Your task to perform on an android device: visit the assistant section in the google photos Image 0: 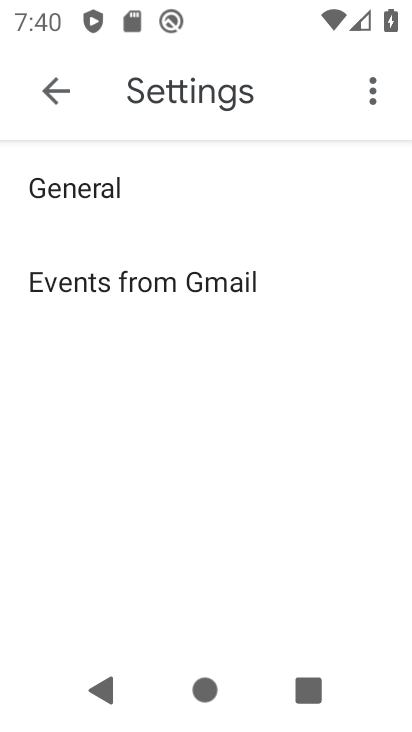
Step 0: press home button
Your task to perform on an android device: visit the assistant section in the google photos Image 1: 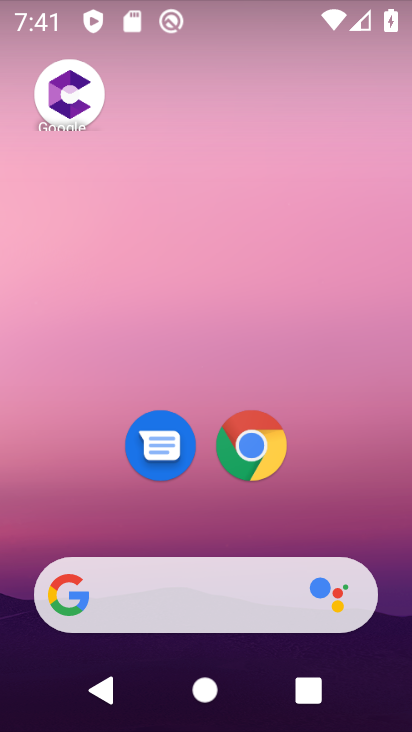
Step 1: drag from (360, 534) to (392, 478)
Your task to perform on an android device: visit the assistant section in the google photos Image 2: 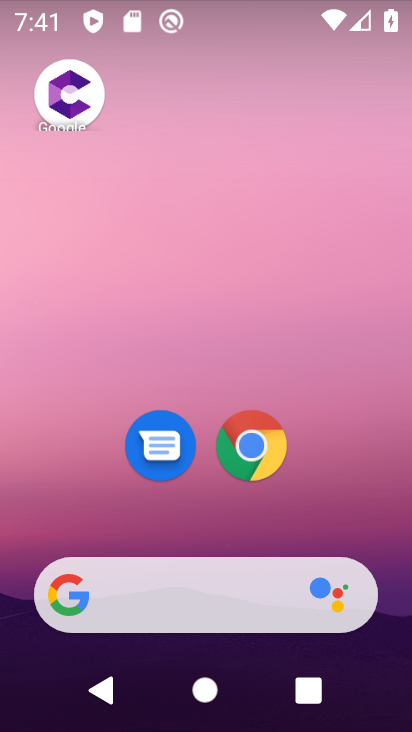
Step 2: drag from (365, 542) to (343, 6)
Your task to perform on an android device: visit the assistant section in the google photos Image 3: 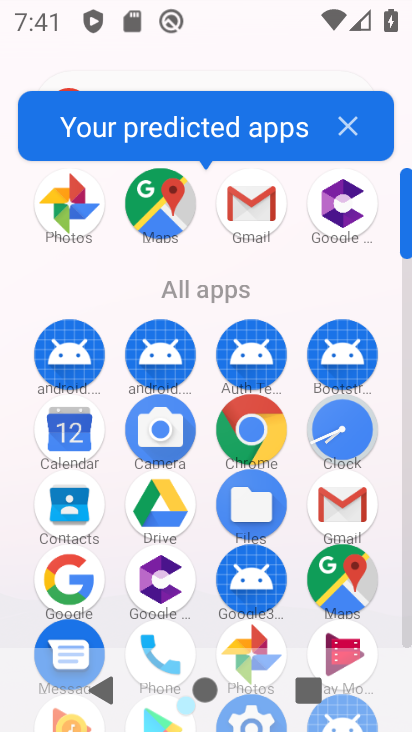
Step 3: click (69, 204)
Your task to perform on an android device: visit the assistant section in the google photos Image 4: 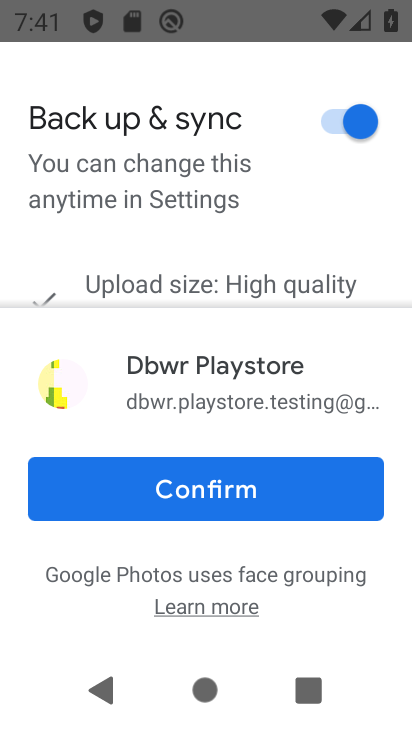
Step 4: click (192, 481)
Your task to perform on an android device: visit the assistant section in the google photos Image 5: 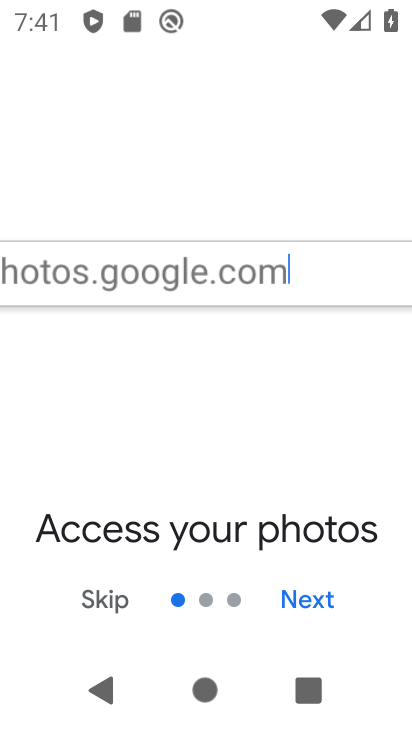
Step 5: click (104, 603)
Your task to perform on an android device: visit the assistant section in the google photos Image 6: 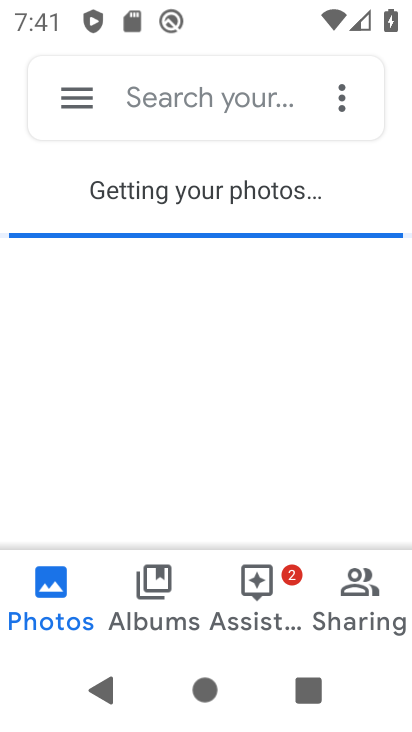
Step 6: click (253, 583)
Your task to perform on an android device: visit the assistant section in the google photos Image 7: 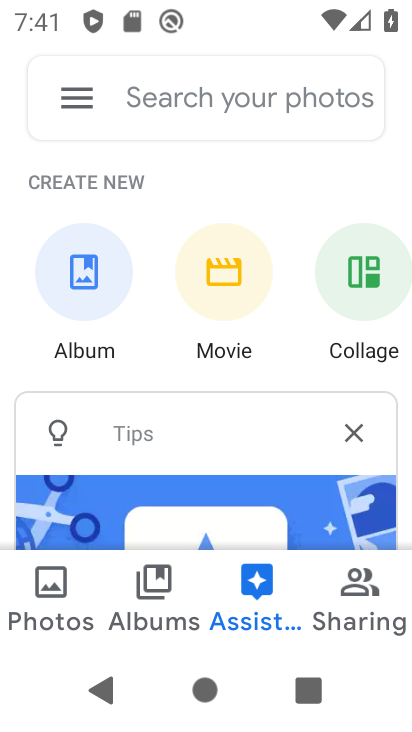
Step 7: task complete